Your task to perform on an android device: change text size in settings app Image 0: 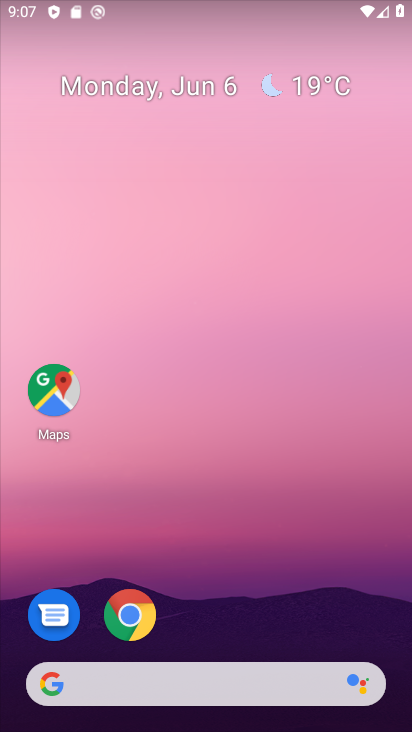
Step 0: drag from (310, 614) to (307, 220)
Your task to perform on an android device: change text size in settings app Image 1: 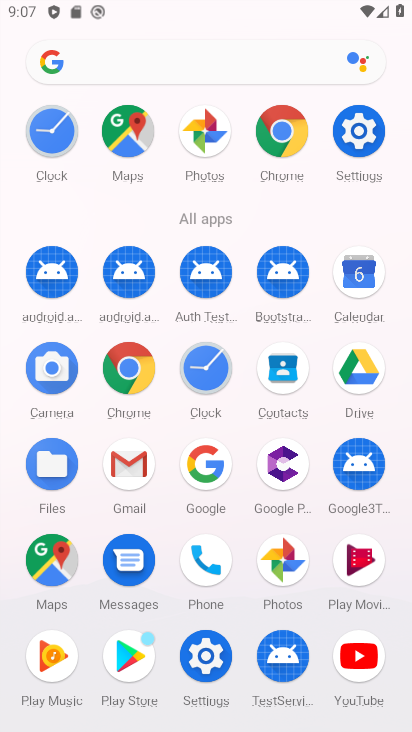
Step 1: click (355, 137)
Your task to perform on an android device: change text size in settings app Image 2: 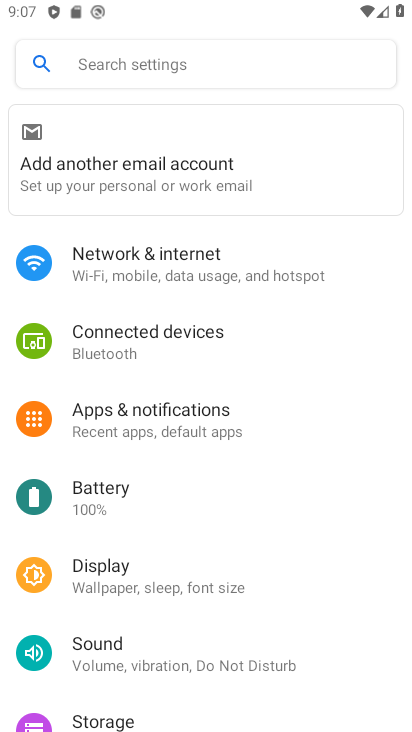
Step 2: task complete